Your task to perform on an android device: Open the Play Movies app and select the watchlist tab. Image 0: 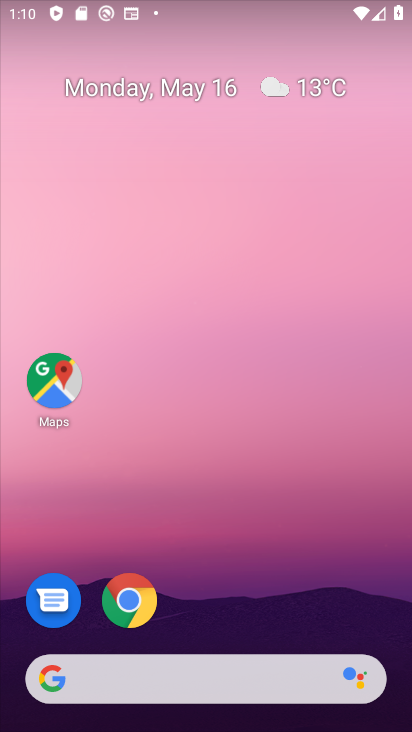
Step 0: drag from (203, 602) to (130, 63)
Your task to perform on an android device: Open the Play Movies app and select the watchlist tab. Image 1: 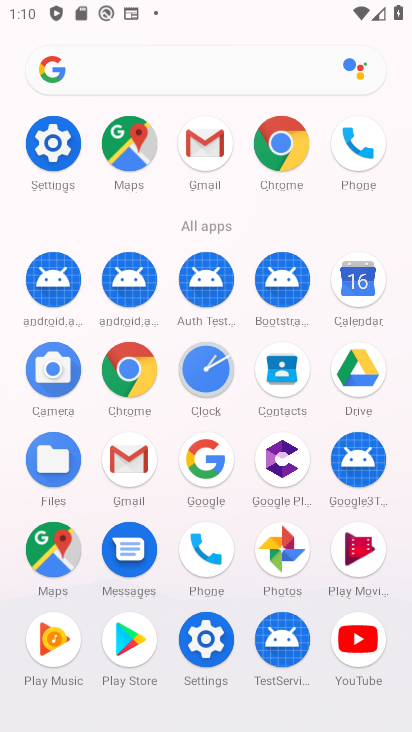
Step 1: click (347, 545)
Your task to perform on an android device: Open the Play Movies app and select the watchlist tab. Image 2: 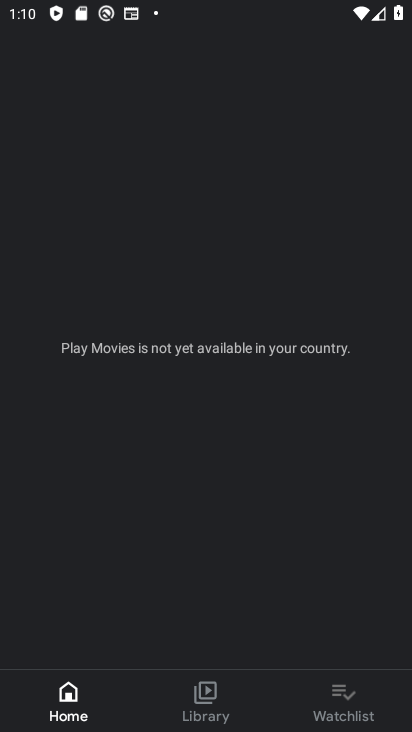
Step 2: click (348, 706)
Your task to perform on an android device: Open the Play Movies app and select the watchlist tab. Image 3: 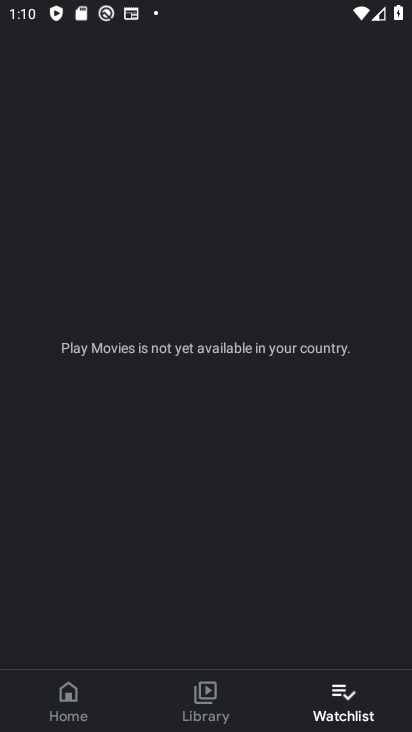
Step 3: task complete